Your task to perform on an android device: check battery use Image 0: 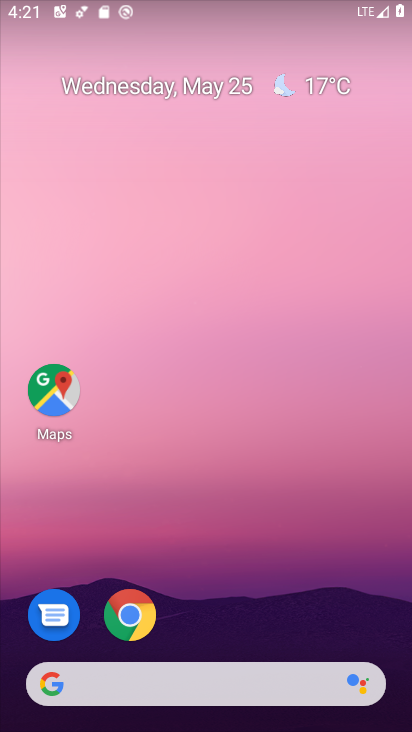
Step 0: drag from (338, 353) to (268, 80)
Your task to perform on an android device: check battery use Image 1: 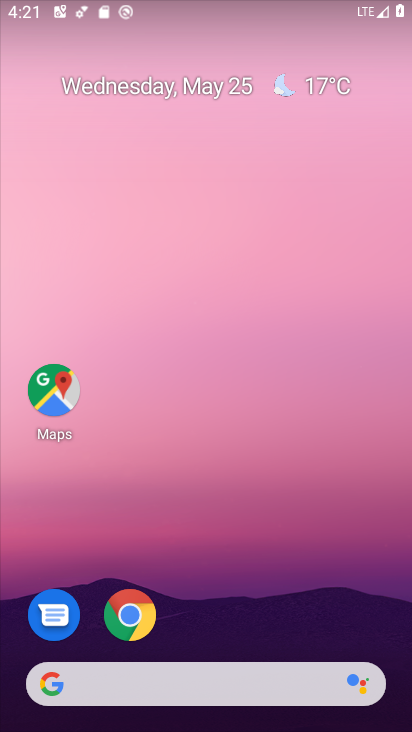
Step 1: drag from (248, 610) to (208, 35)
Your task to perform on an android device: check battery use Image 2: 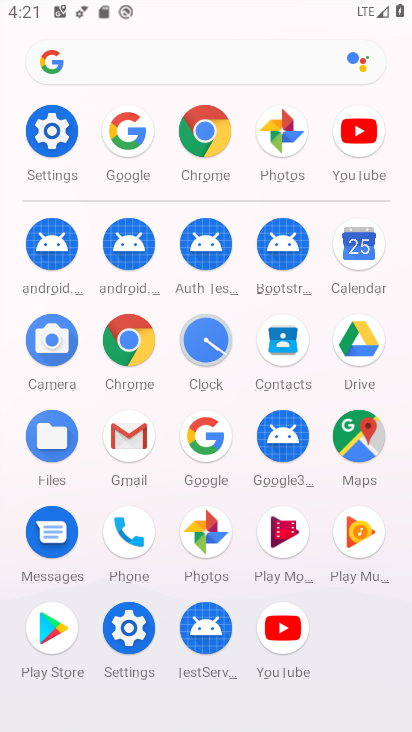
Step 2: click (55, 120)
Your task to perform on an android device: check battery use Image 3: 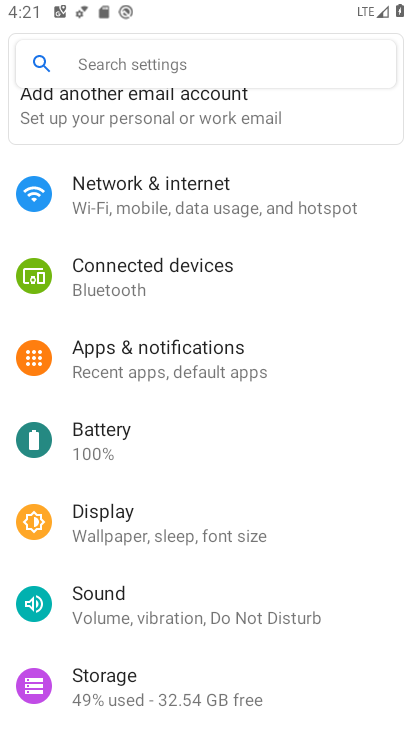
Step 3: click (136, 451)
Your task to perform on an android device: check battery use Image 4: 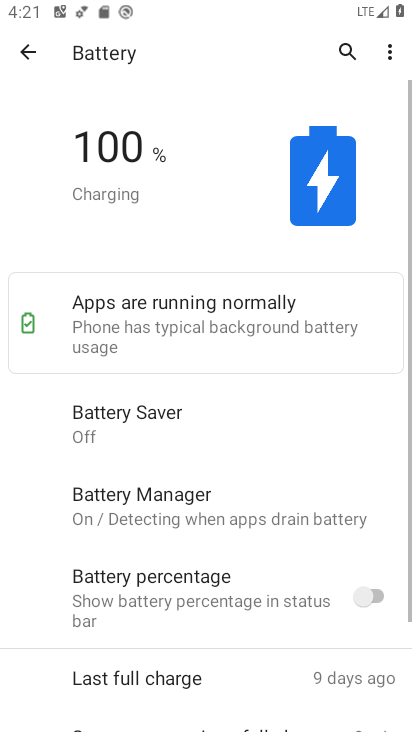
Step 4: click (387, 61)
Your task to perform on an android device: check battery use Image 5: 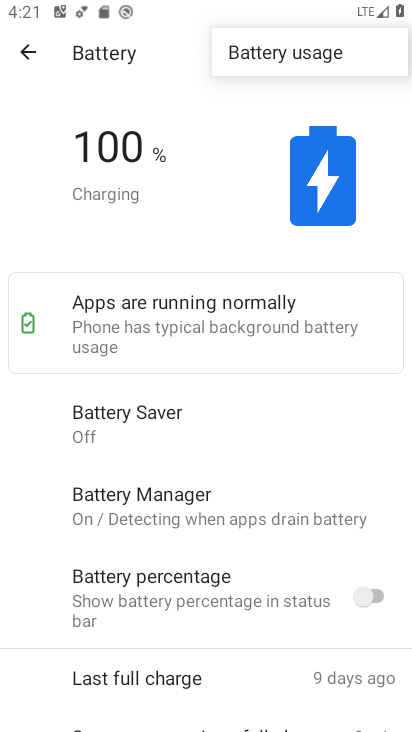
Step 5: click (290, 50)
Your task to perform on an android device: check battery use Image 6: 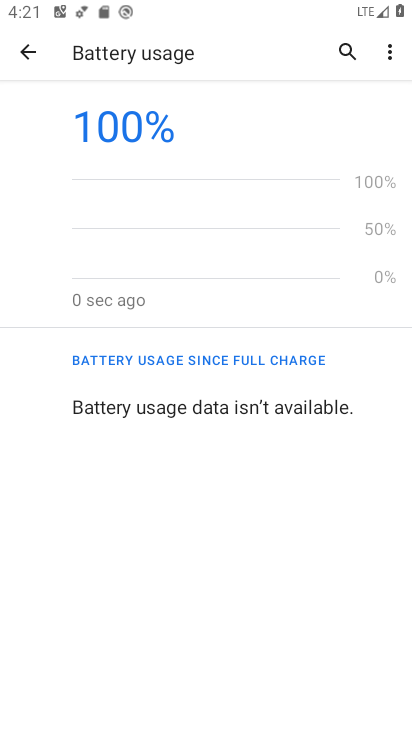
Step 6: task complete